Your task to perform on an android device: Open the Play Movies app and select the watchlist tab. Image 0: 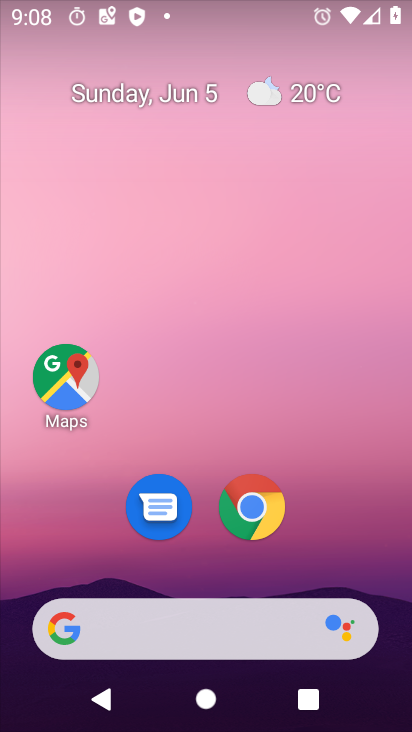
Step 0: drag from (321, 525) to (216, 21)
Your task to perform on an android device: Open the Play Movies app and select the watchlist tab. Image 1: 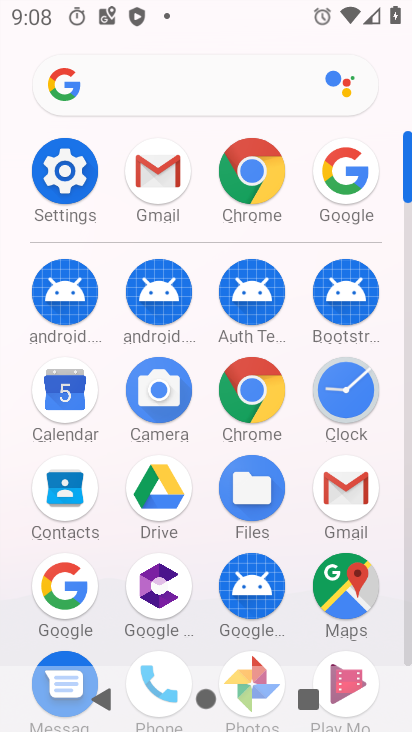
Step 1: drag from (13, 551) to (9, 292)
Your task to perform on an android device: Open the Play Movies app and select the watchlist tab. Image 2: 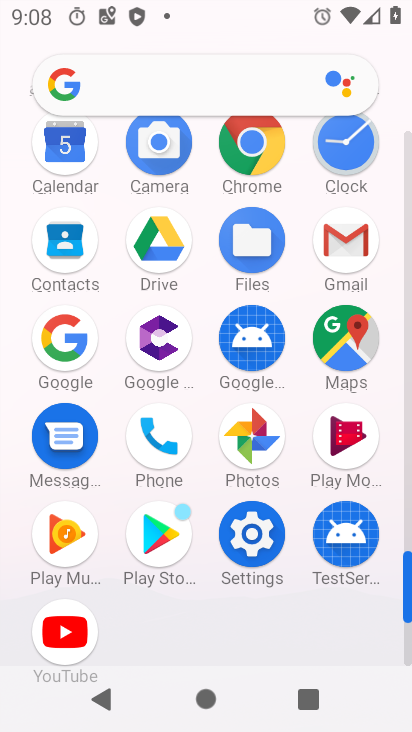
Step 2: click (353, 429)
Your task to perform on an android device: Open the Play Movies app and select the watchlist tab. Image 3: 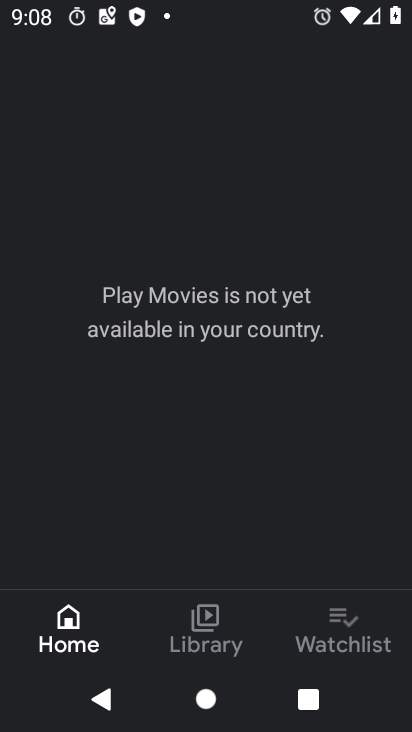
Step 3: click (340, 641)
Your task to perform on an android device: Open the Play Movies app and select the watchlist tab. Image 4: 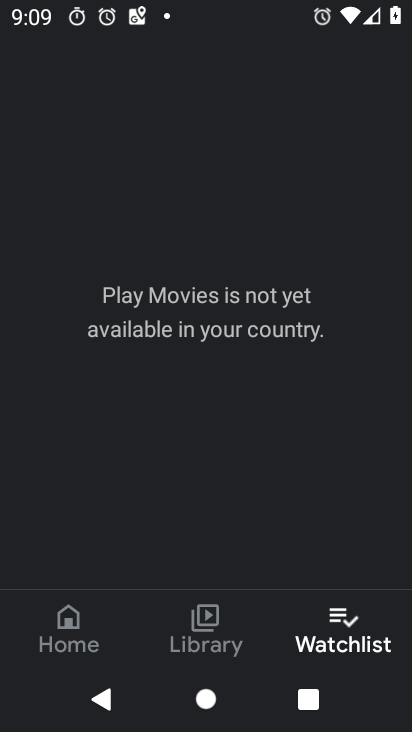
Step 4: task complete